Your task to perform on an android device: Open settings on Google Maps Image 0: 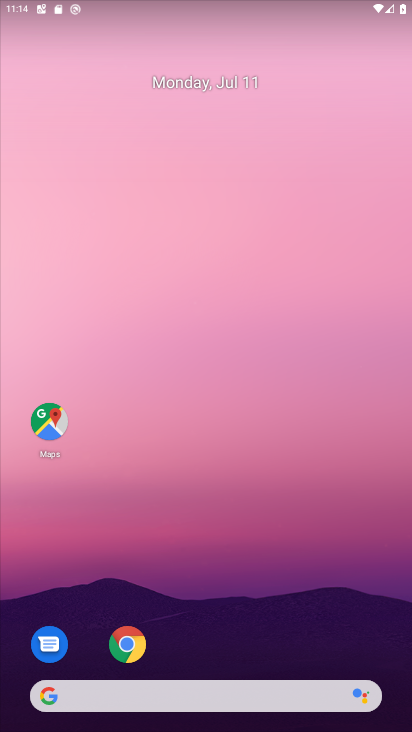
Step 0: click (50, 412)
Your task to perform on an android device: Open settings on Google Maps Image 1: 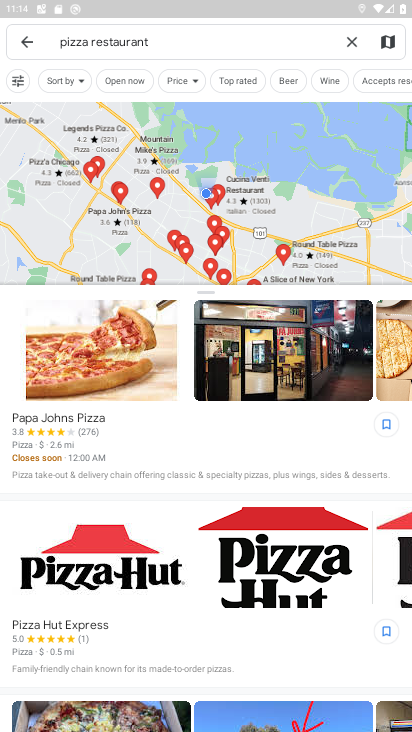
Step 1: click (31, 43)
Your task to perform on an android device: Open settings on Google Maps Image 2: 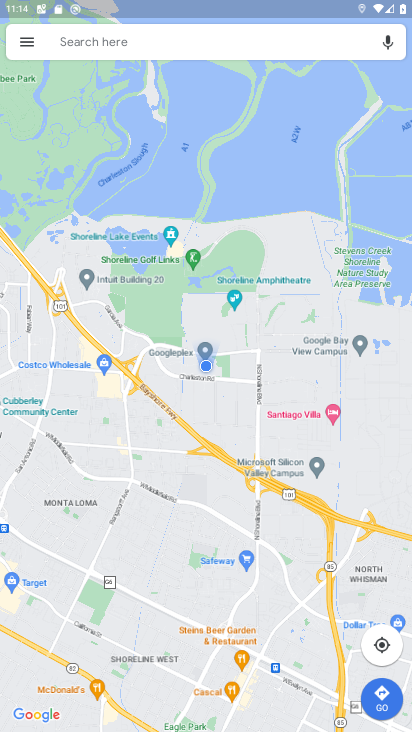
Step 2: click (24, 33)
Your task to perform on an android device: Open settings on Google Maps Image 3: 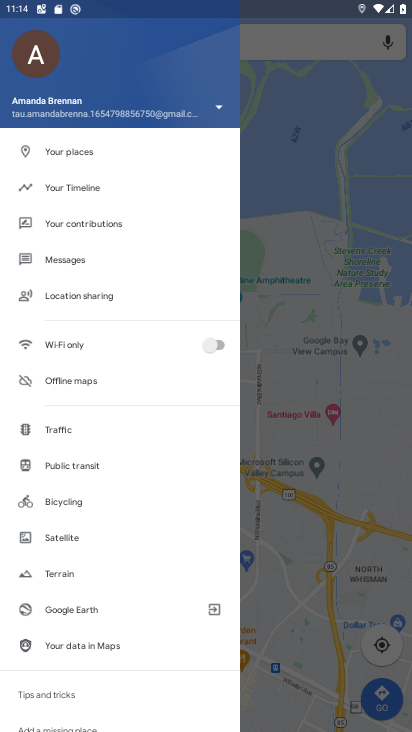
Step 3: drag from (101, 690) to (104, 212)
Your task to perform on an android device: Open settings on Google Maps Image 4: 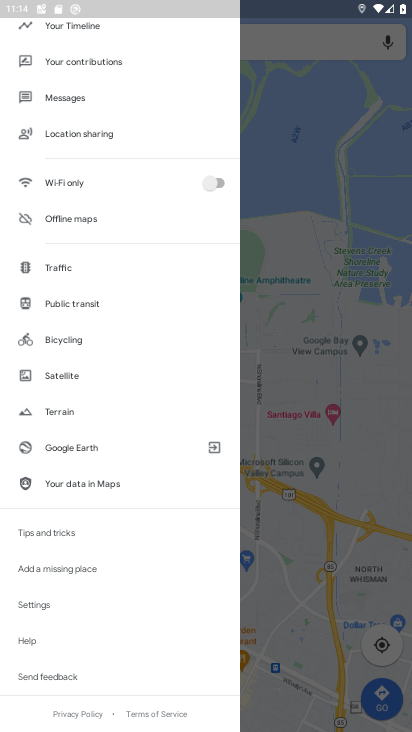
Step 4: click (70, 611)
Your task to perform on an android device: Open settings on Google Maps Image 5: 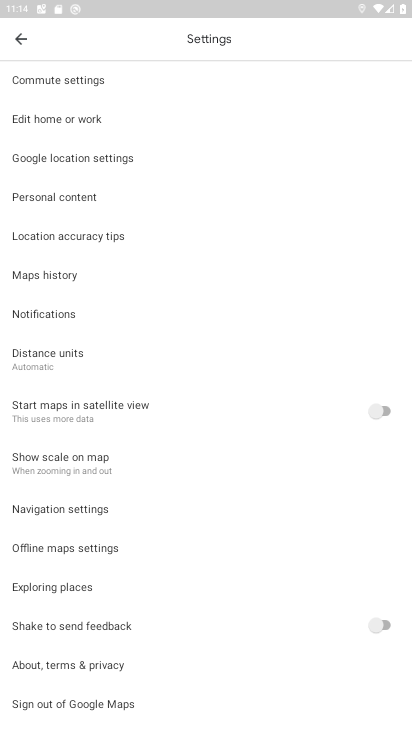
Step 5: task complete